Your task to perform on an android device: Add alienware aurora to the cart on target, then select checkout. Image 0: 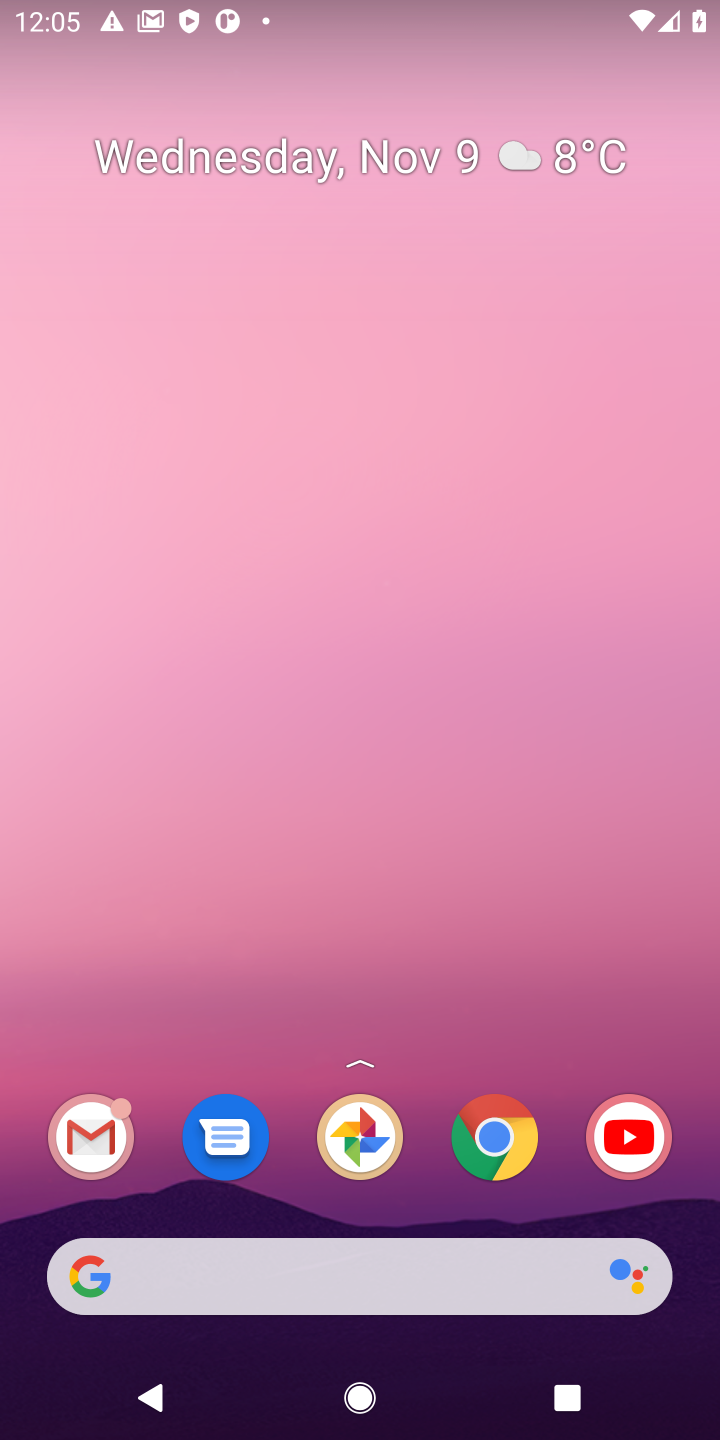
Step 0: click (498, 1151)
Your task to perform on an android device: Add alienware aurora to the cart on target, then select checkout. Image 1: 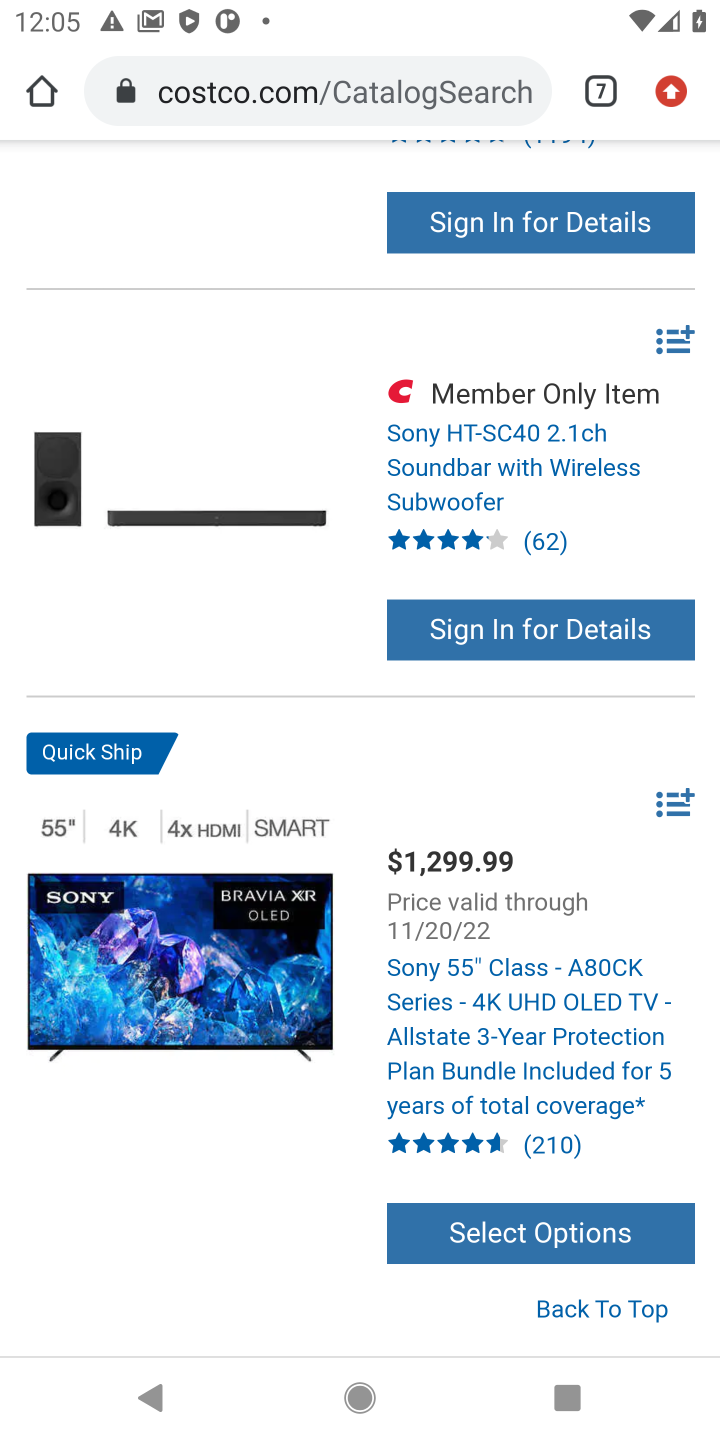
Step 1: click (601, 89)
Your task to perform on an android device: Add alienware aurora to the cart on target, then select checkout. Image 2: 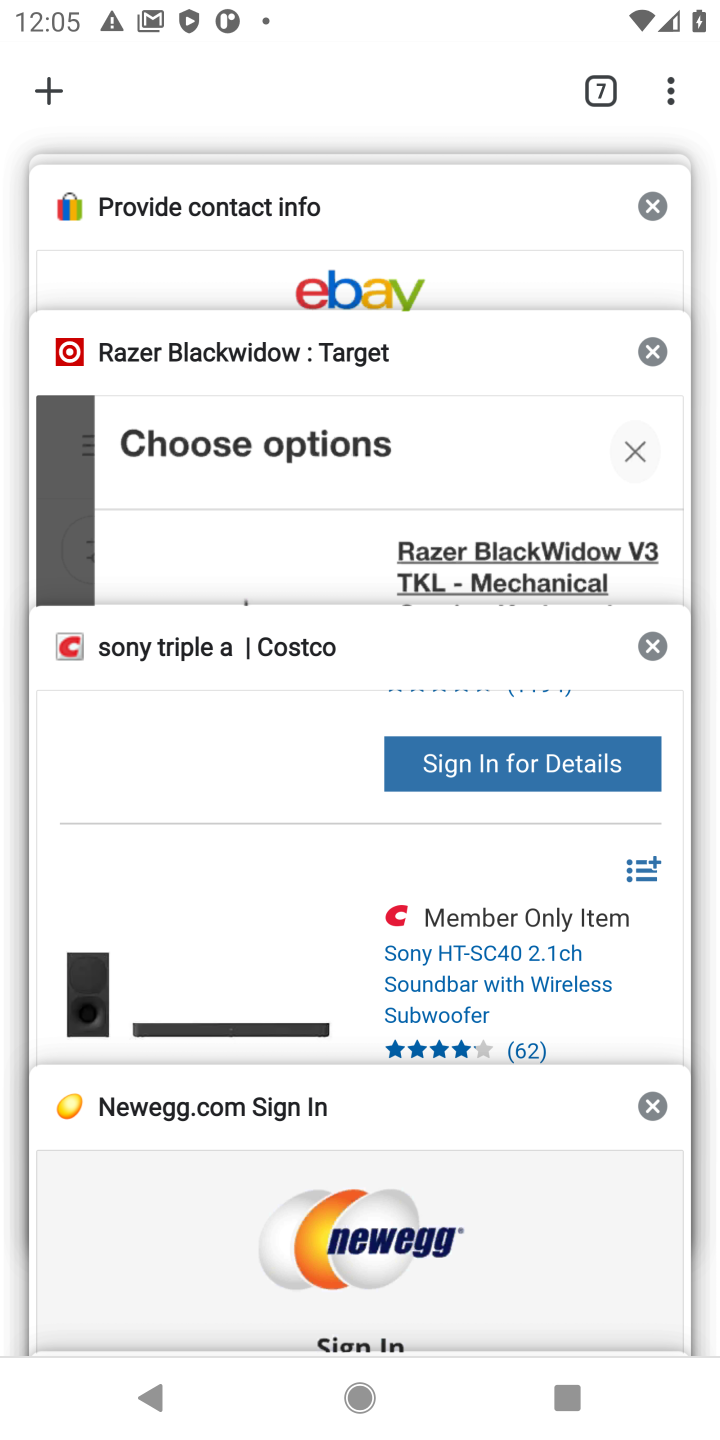
Step 2: click (393, 406)
Your task to perform on an android device: Add alienware aurora to the cart on target, then select checkout. Image 3: 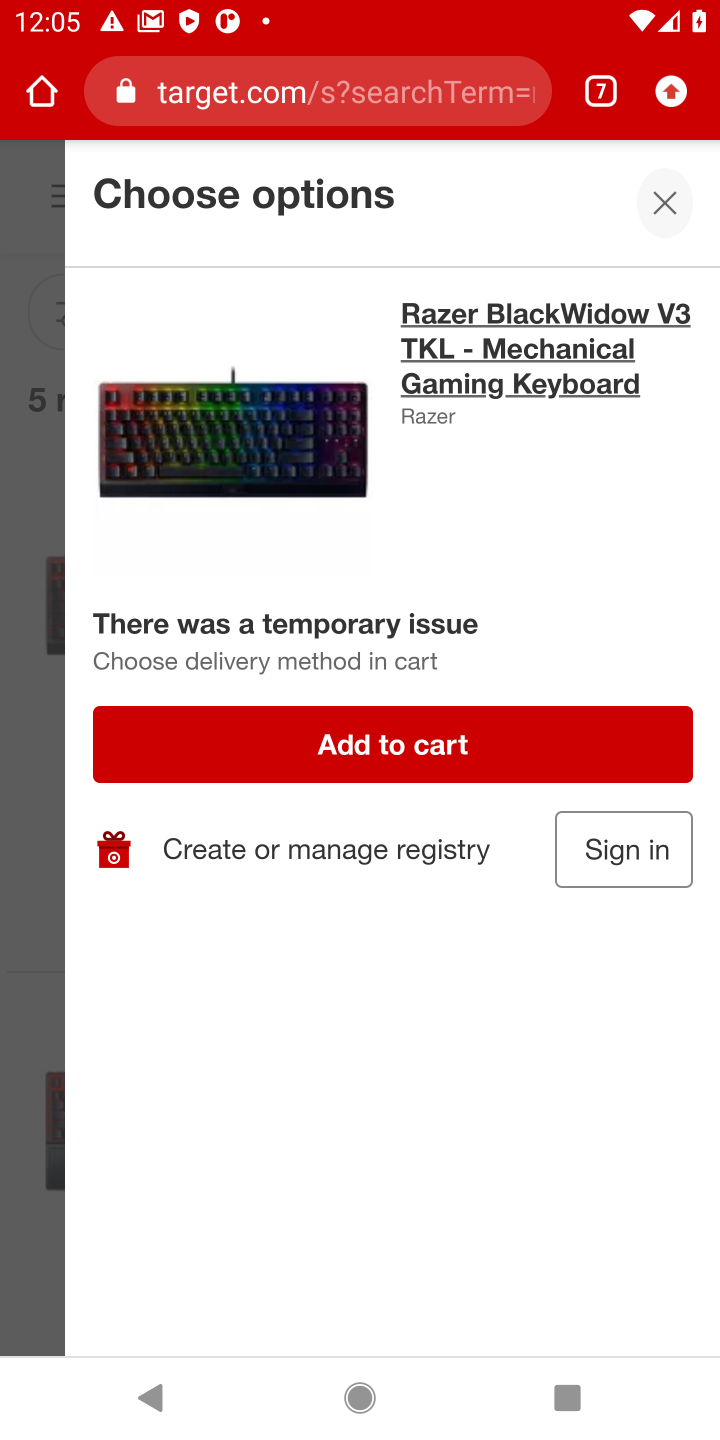
Step 3: click (668, 207)
Your task to perform on an android device: Add alienware aurora to the cart on target, then select checkout. Image 4: 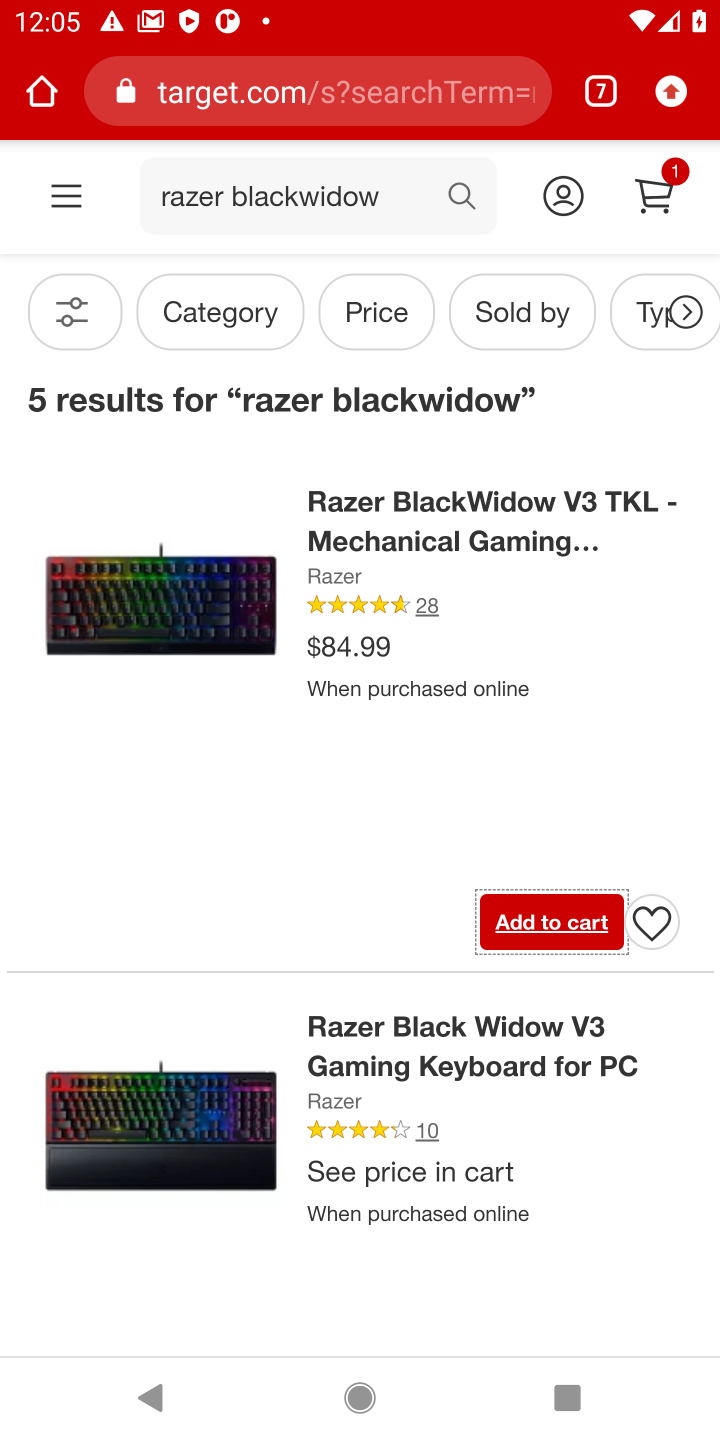
Step 4: click (307, 207)
Your task to perform on an android device: Add alienware aurora to the cart on target, then select checkout. Image 5: 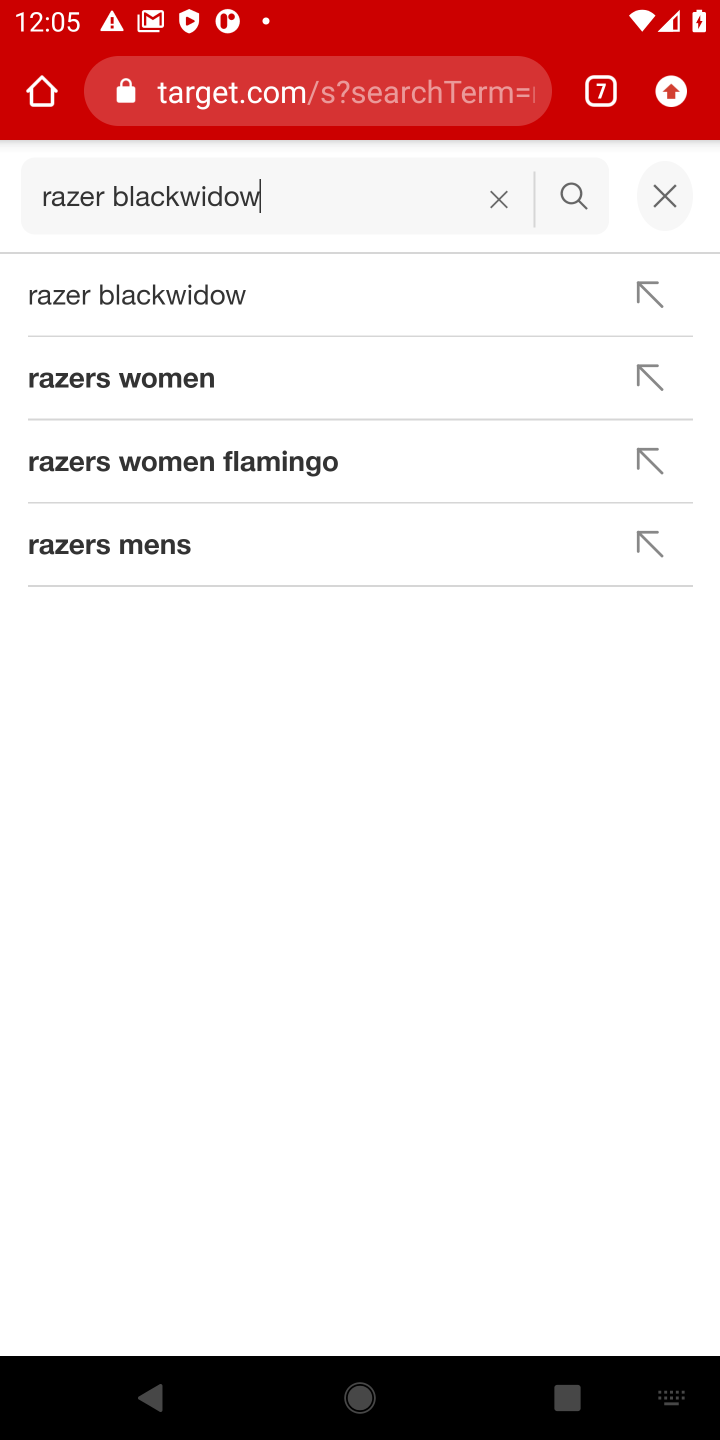
Step 5: click (490, 198)
Your task to perform on an android device: Add alienware aurora to the cart on target, then select checkout. Image 6: 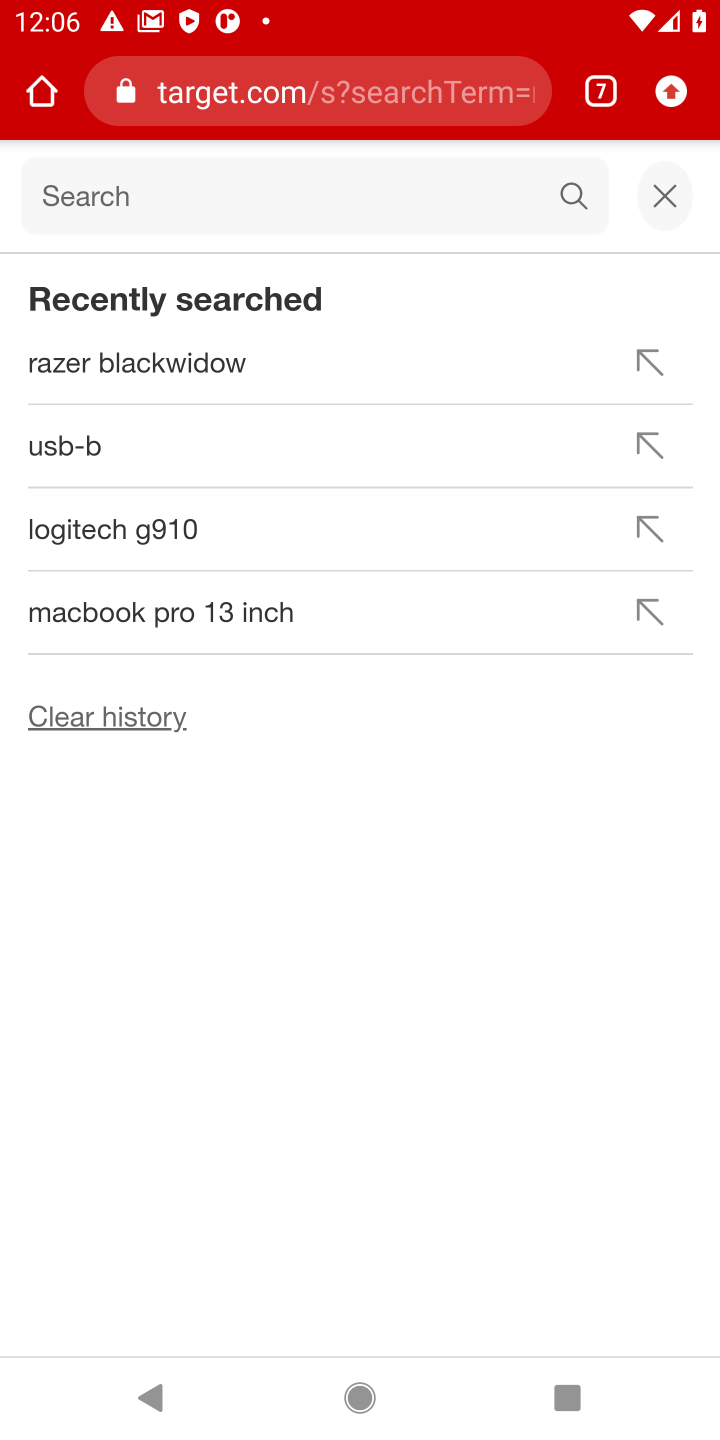
Step 6: click (169, 211)
Your task to perform on an android device: Add alienware aurora to the cart on target, then select checkout. Image 7: 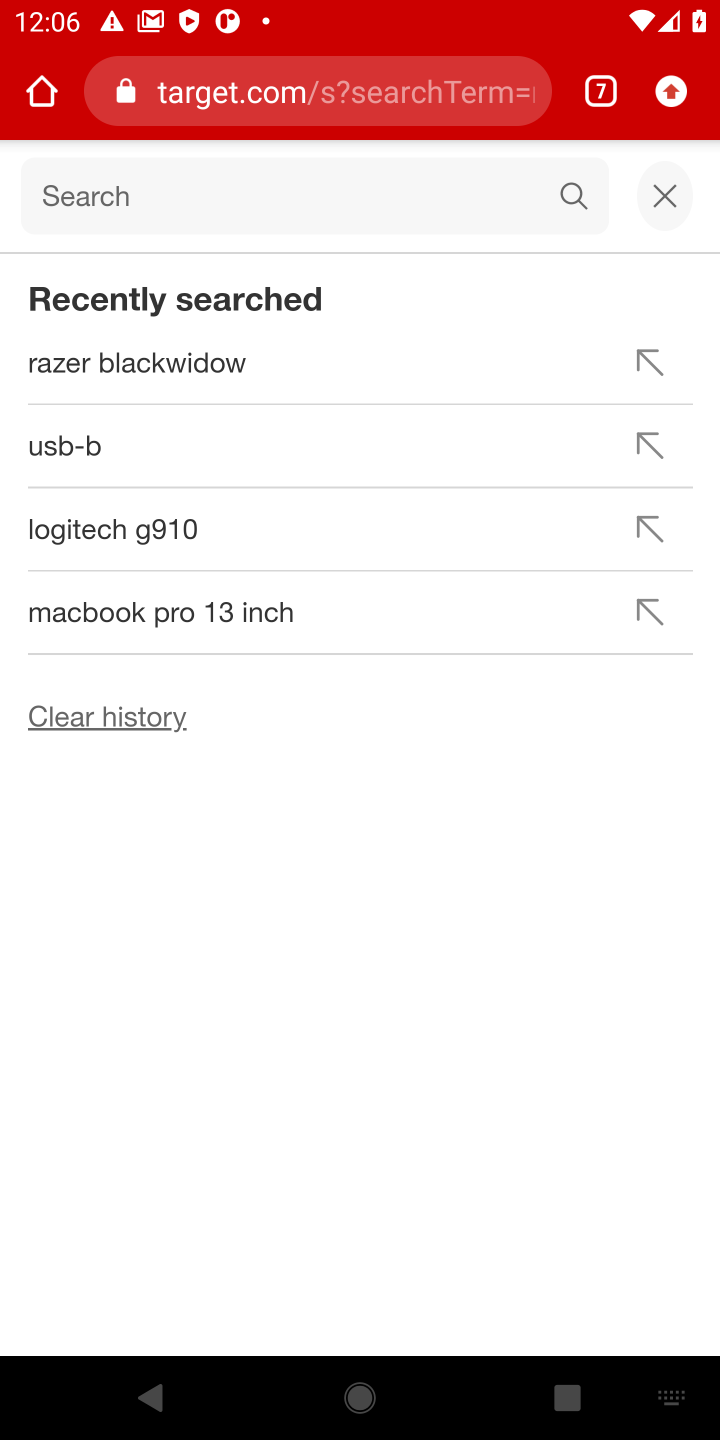
Step 7: type "alienware aurora "
Your task to perform on an android device: Add alienware aurora to the cart on target, then select checkout. Image 8: 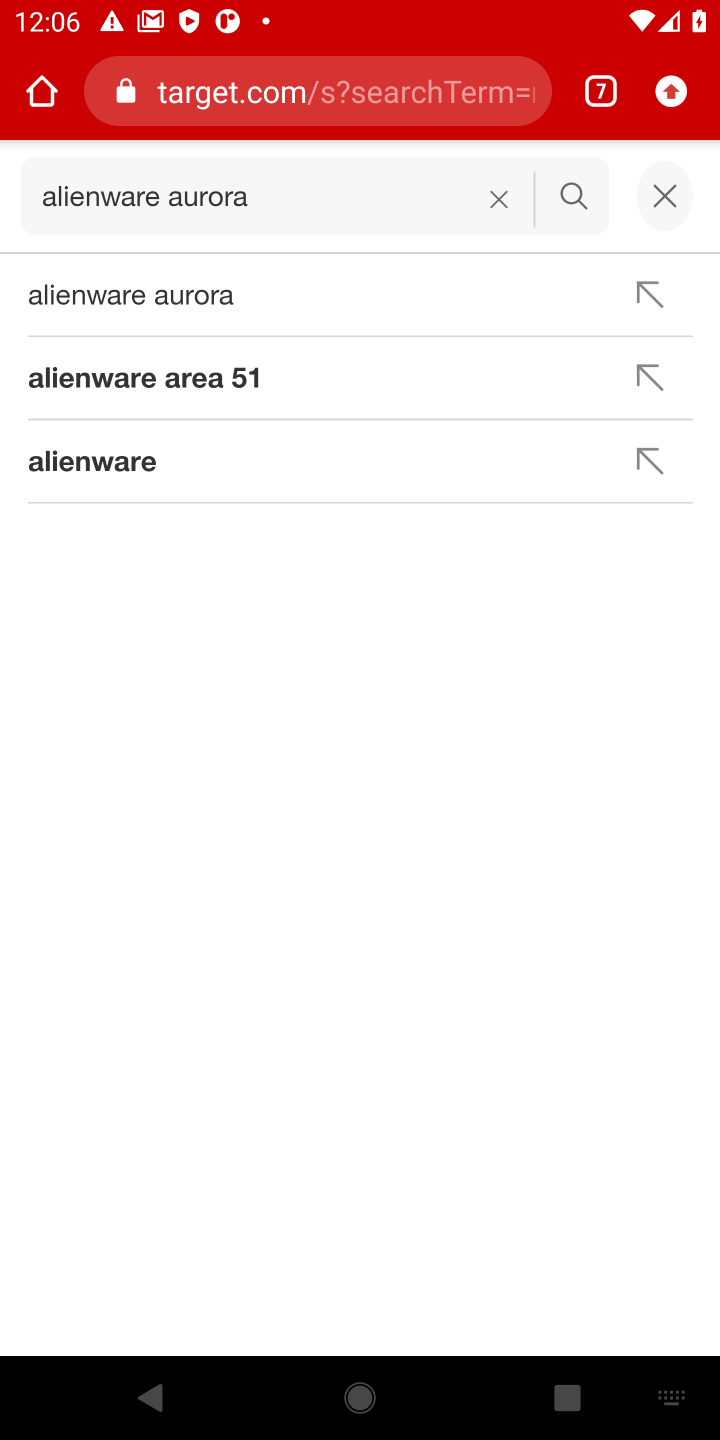
Step 8: click (188, 298)
Your task to perform on an android device: Add alienware aurora to the cart on target, then select checkout. Image 9: 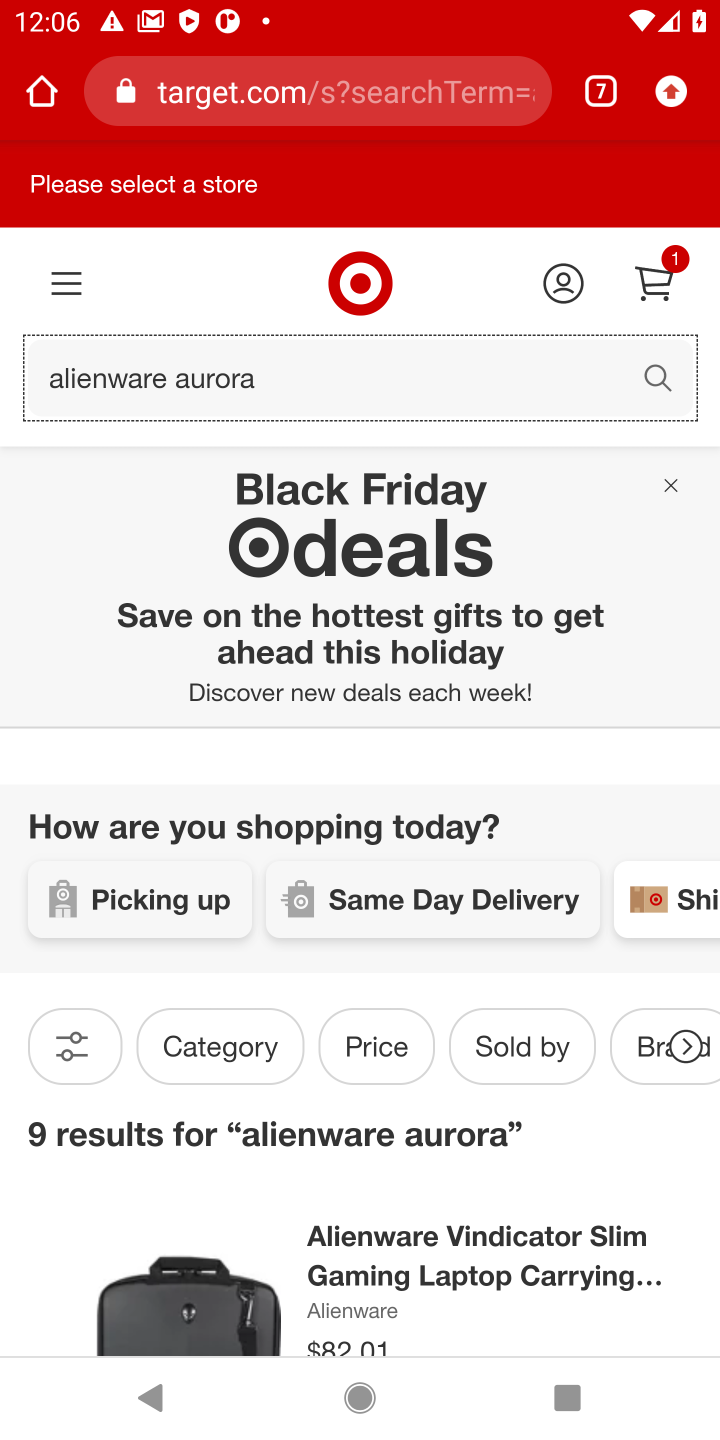
Step 9: drag from (342, 1196) to (566, 102)
Your task to perform on an android device: Add alienware aurora to the cart on target, then select checkout. Image 10: 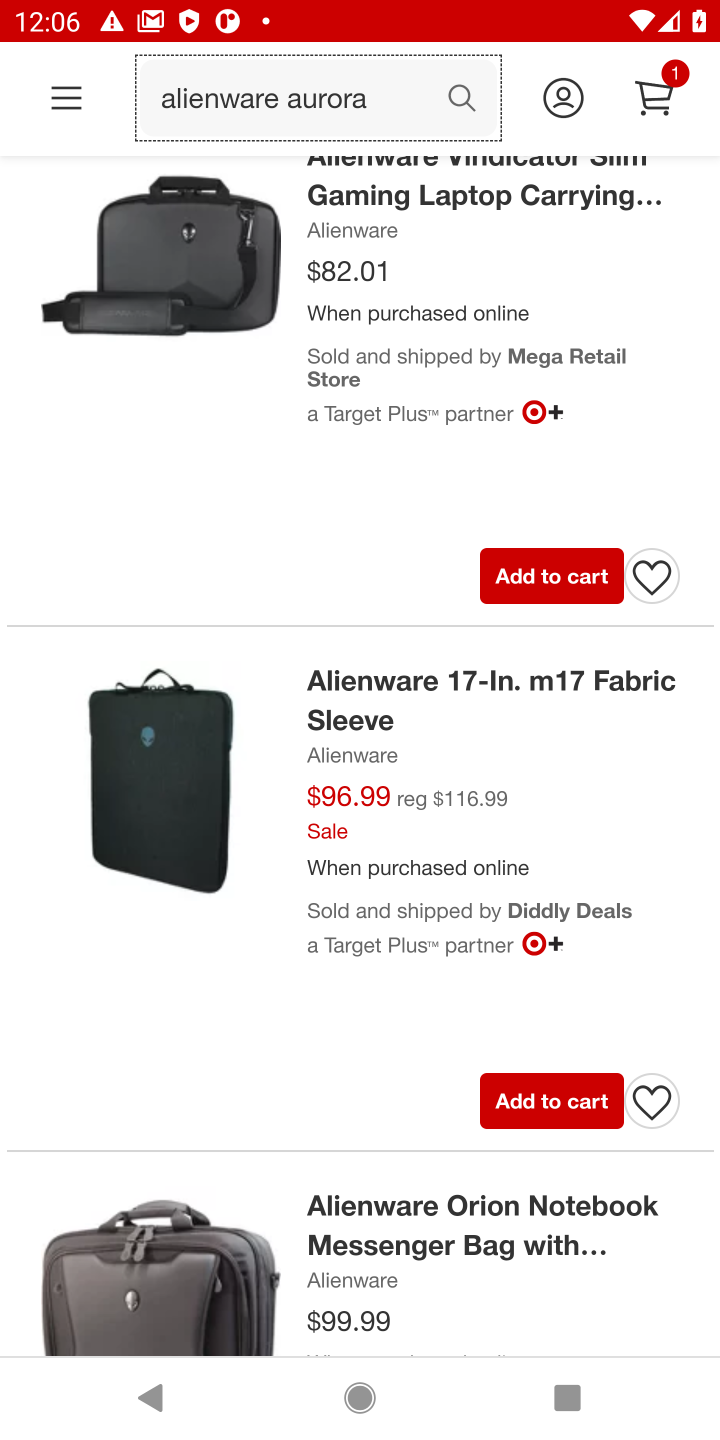
Step 10: drag from (453, 833) to (584, 296)
Your task to perform on an android device: Add alienware aurora to the cart on target, then select checkout. Image 11: 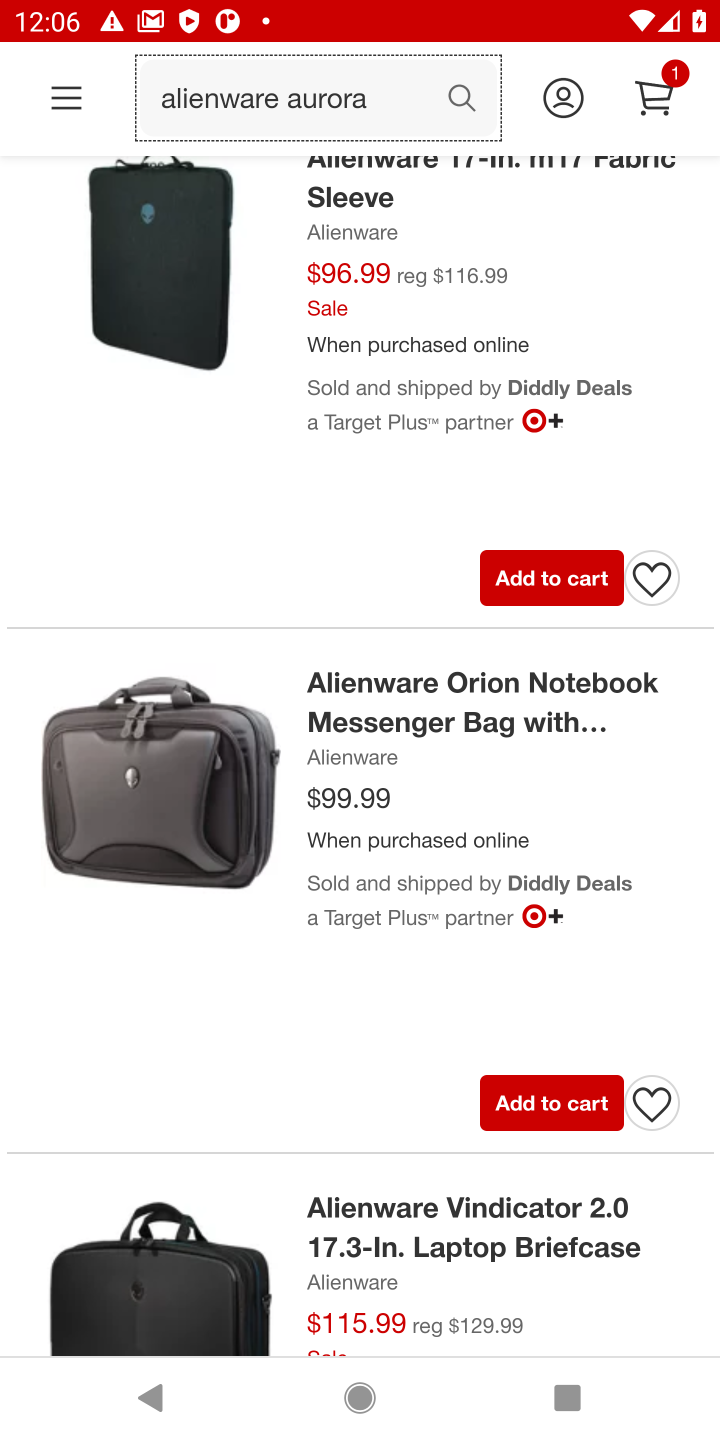
Step 11: drag from (378, 795) to (518, 458)
Your task to perform on an android device: Add alienware aurora to the cart on target, then select checkout. Image 12: 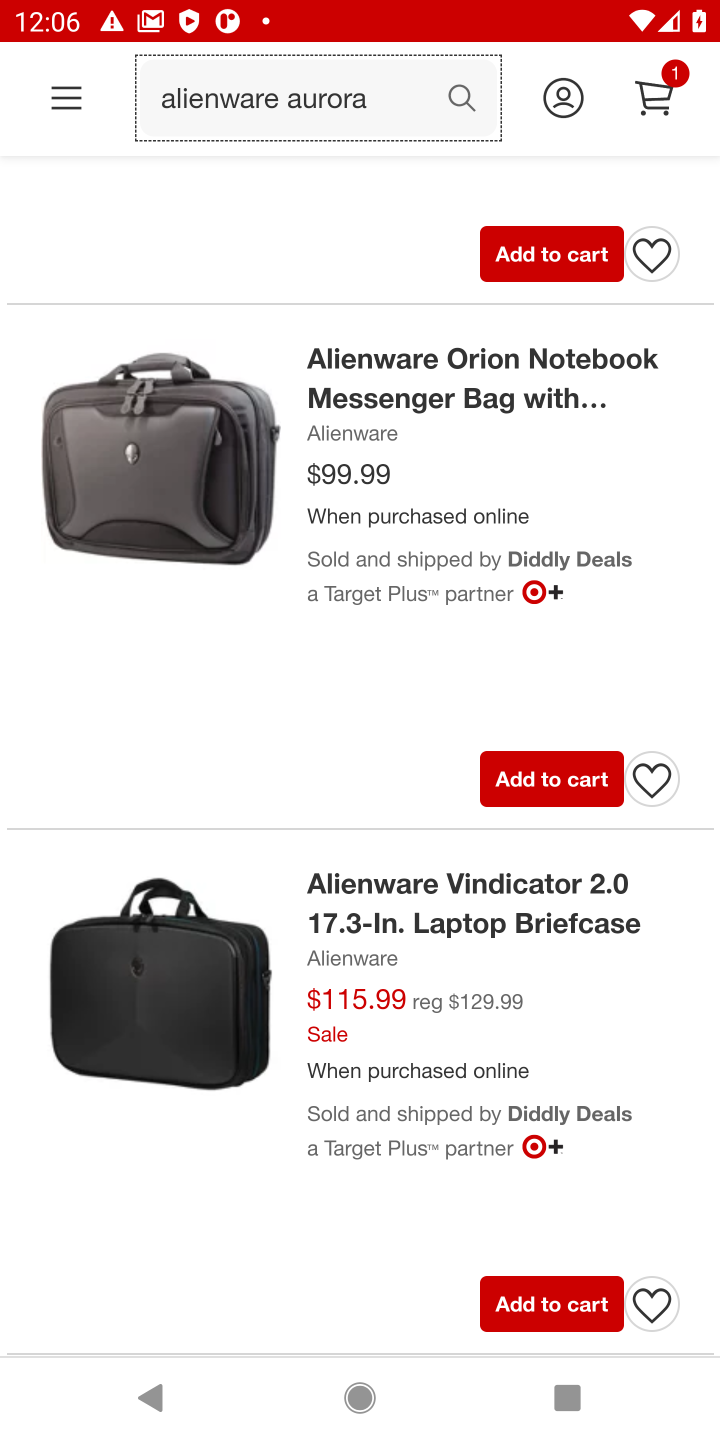
Step 12: drag from (247, 1197) to (370, 798)
Your task to perform on an android device: Add alienware aurora to the cart on target, then select checkout. Image 13: 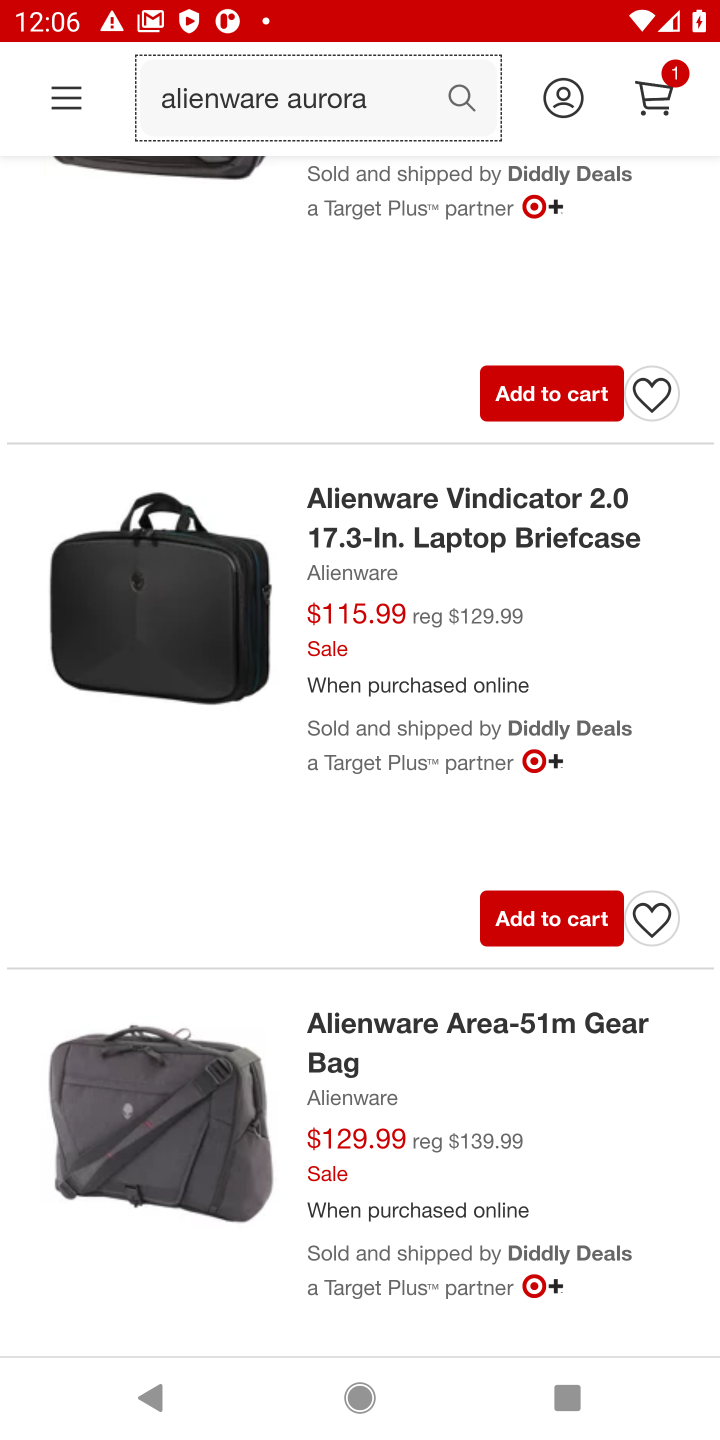
Step 13: drag from (445, 844) to (304, 1430)
Your task to perform on an android device: Add alienware aurora to the cart on target, then select checkout. Image 14: 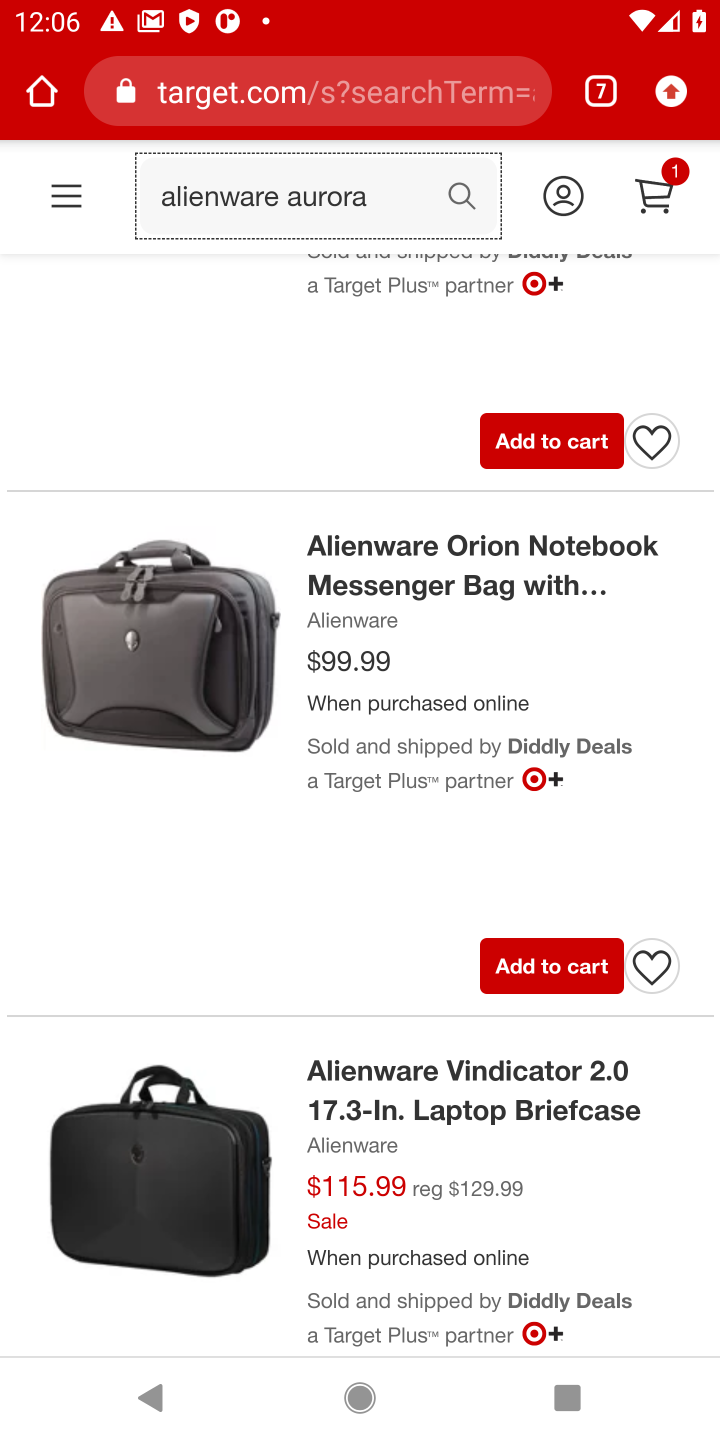
Step 14: drag from (455, 755) to (337, 1404)
Your task to perform on an android device: Add alienware aurora to the cart on target, then select checkout. Image 15: 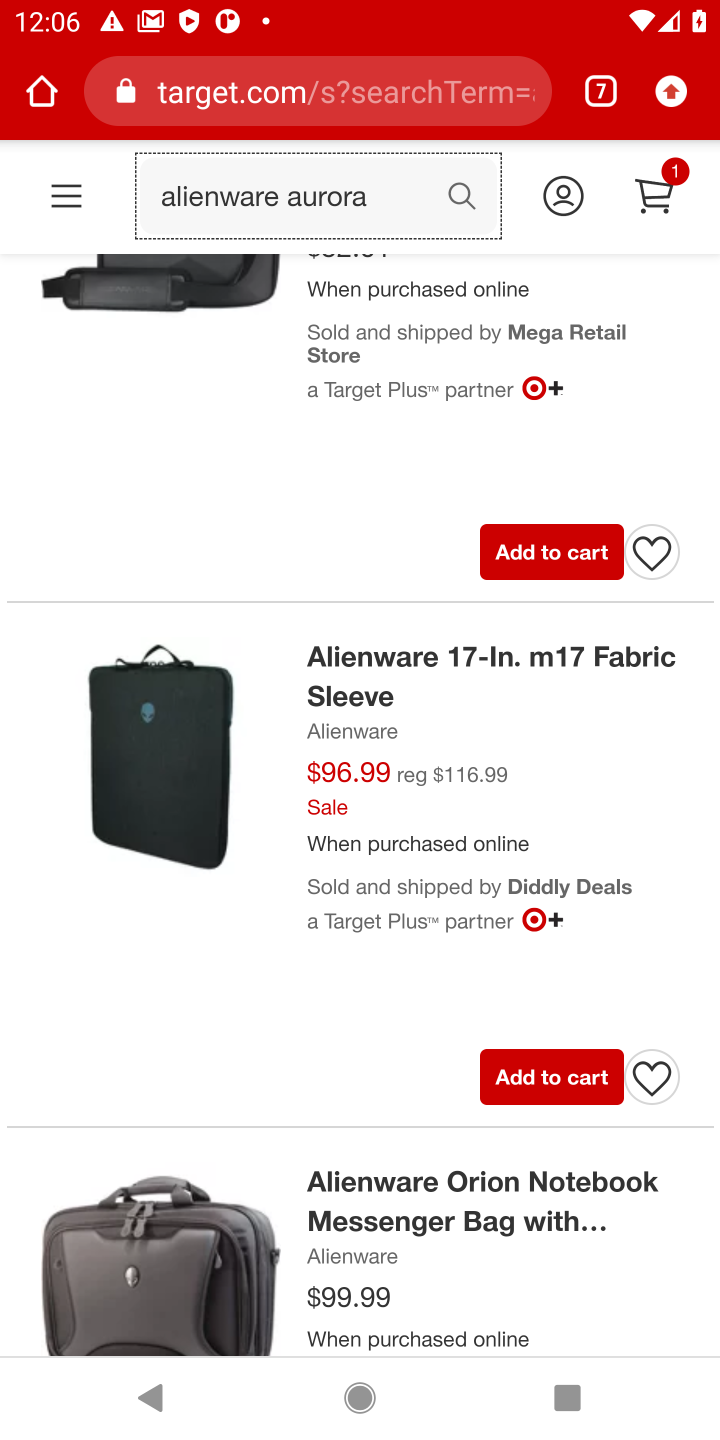
Step 15: click (548, 545)
Your task to perform on an android device: Add alienware aurora to the cart on target, then select checkout. Image 16: 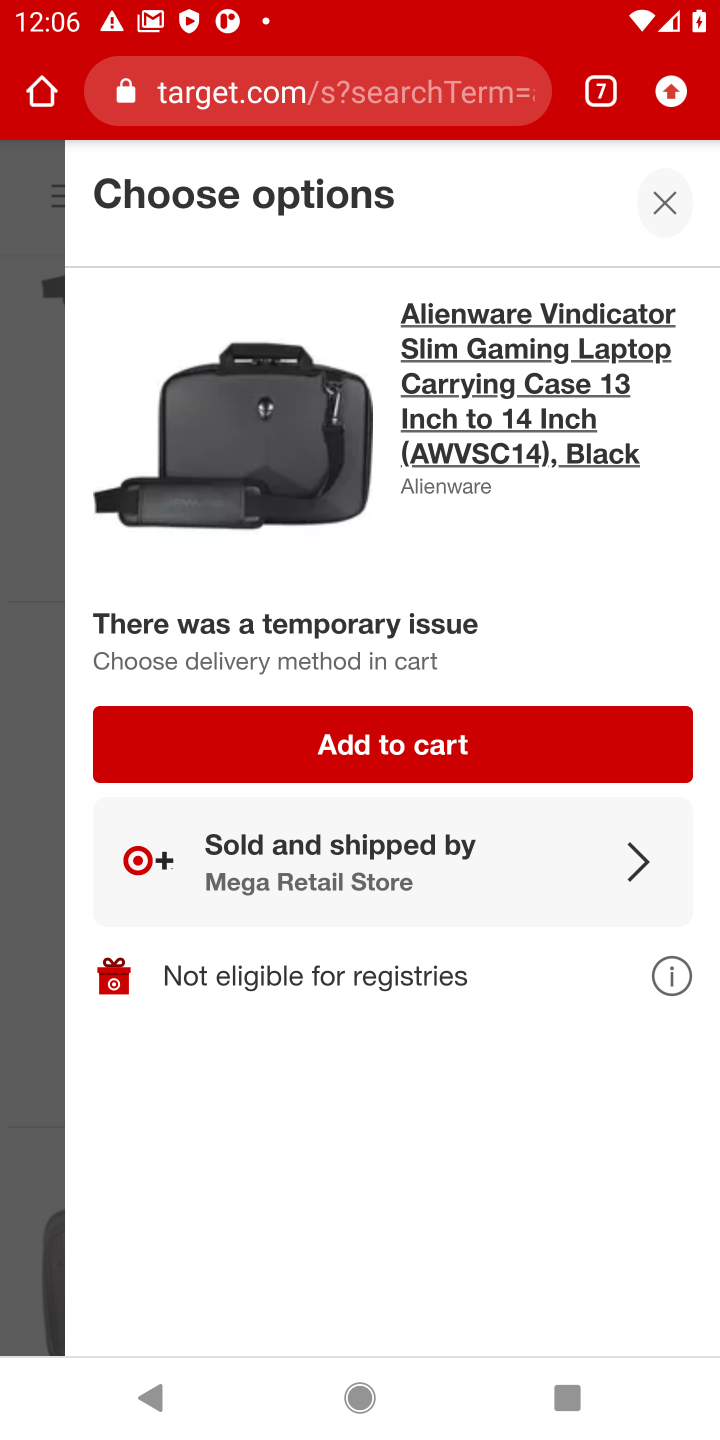
Step 16: click (418, 751)
Your task to perform on an android device: Add alienware aurora to the cart on target, then select checkout. Image 17: 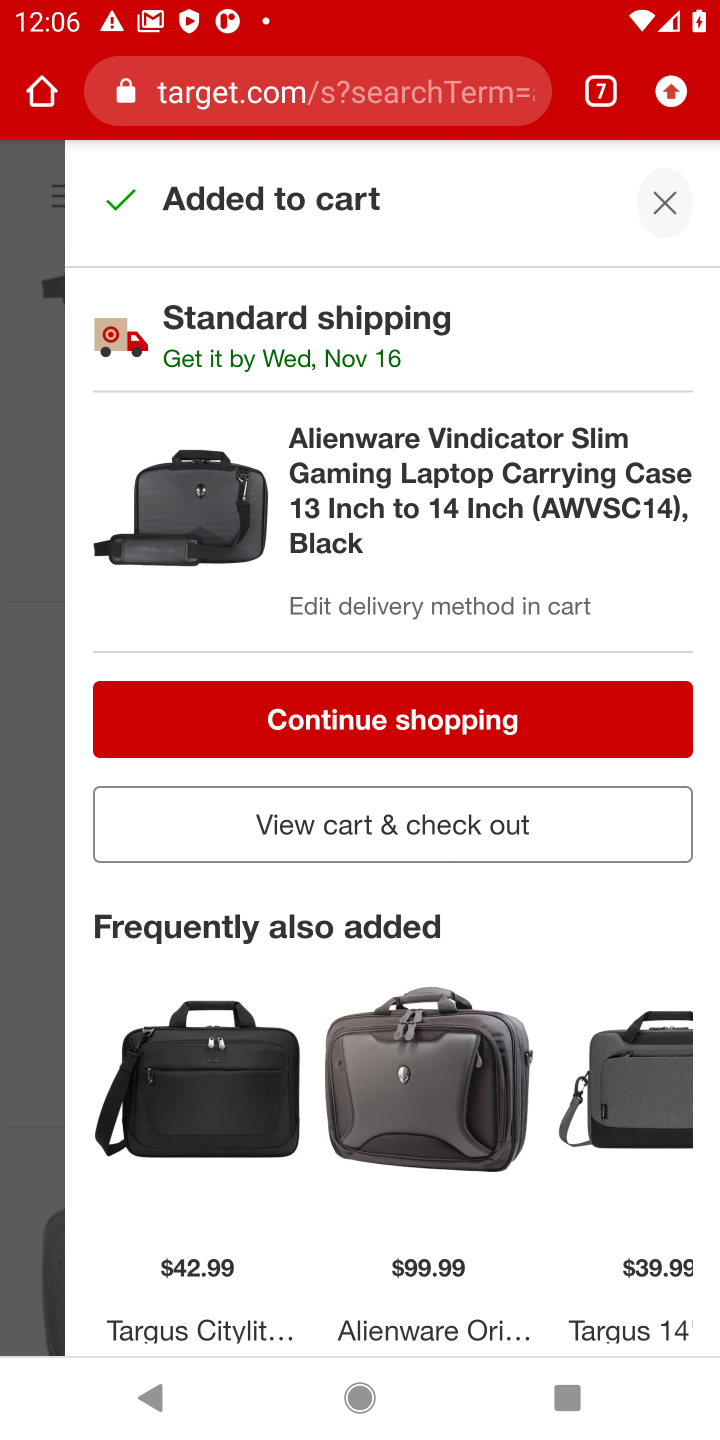
Step 17: click (448, 824)
Your task to perform on an android device: Add alienware aurora to the cart on target, then select checkout. Image 18: 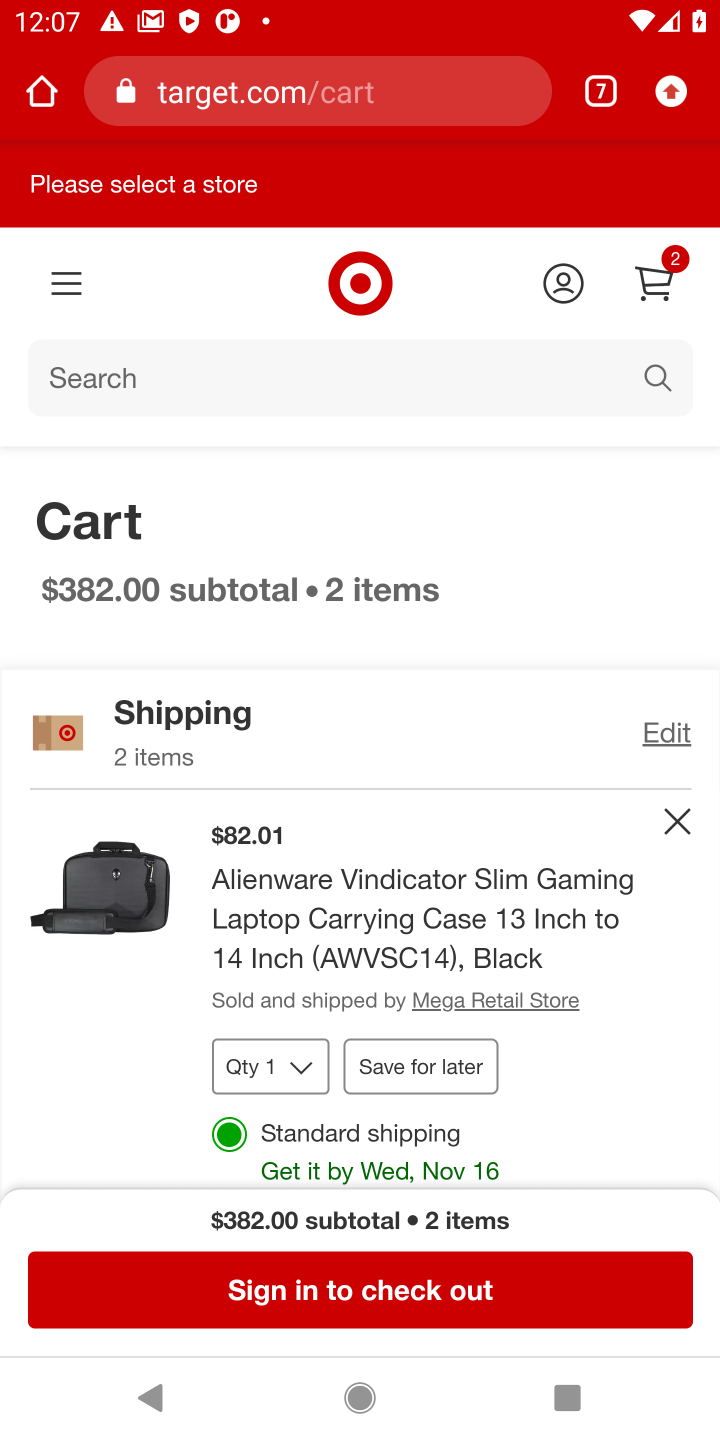
Step 18: click (418, 1274)
Your task to perform on an android device: Add alienware aurora to the cart on target, then select checkout. Image 19: 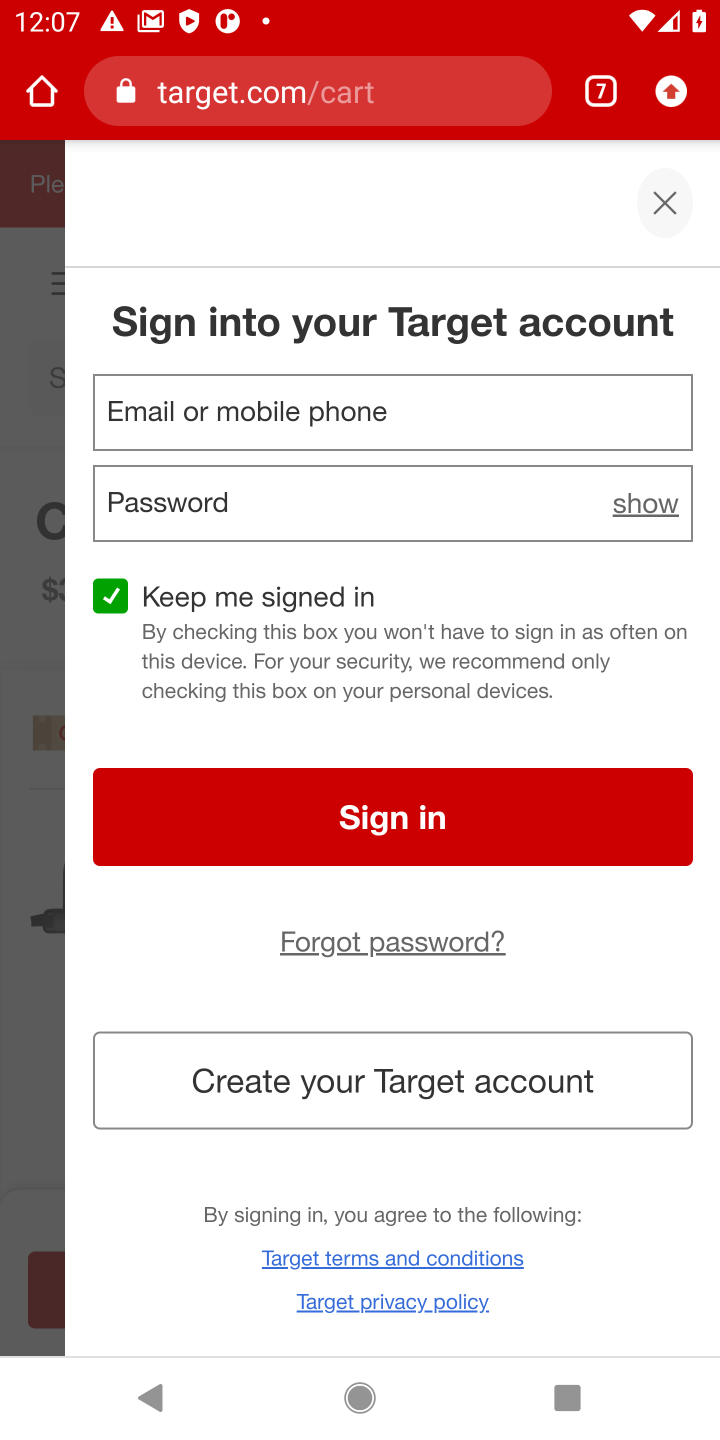
Step 19: task complete